Your task to perform on an android device: Go to internet settings Image 0: 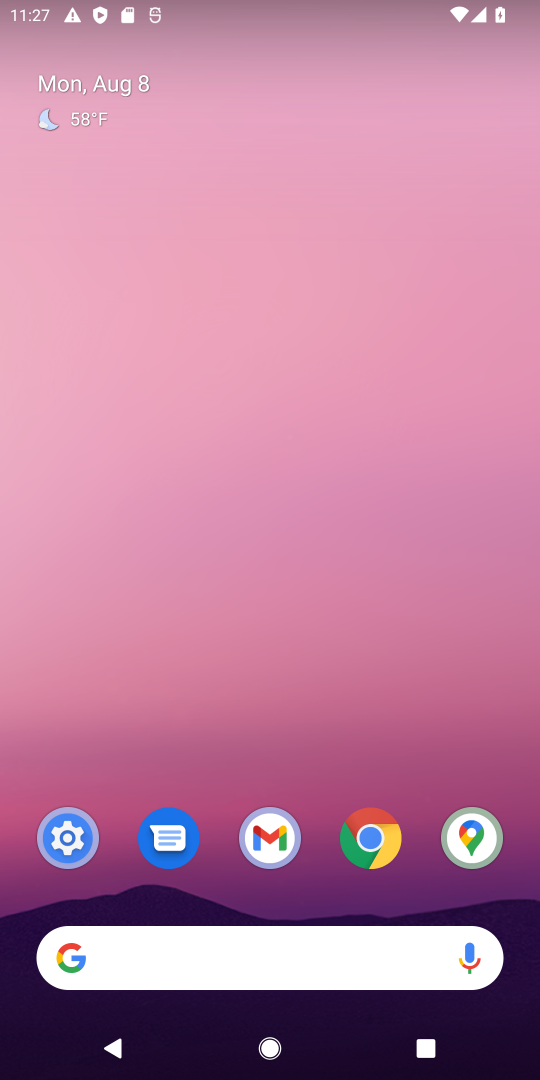
Step 0: press home button
Your task to perform on an android device: Go to internet settings Image 1: 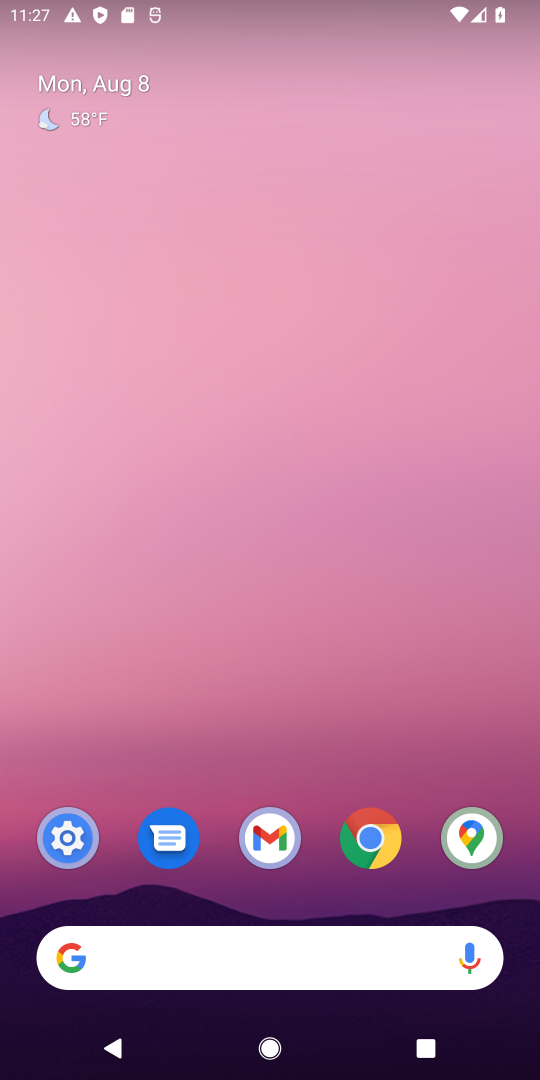
Step 1: click (74, 846)
Your task to perform on an android device: Go to internet settings Image 2: 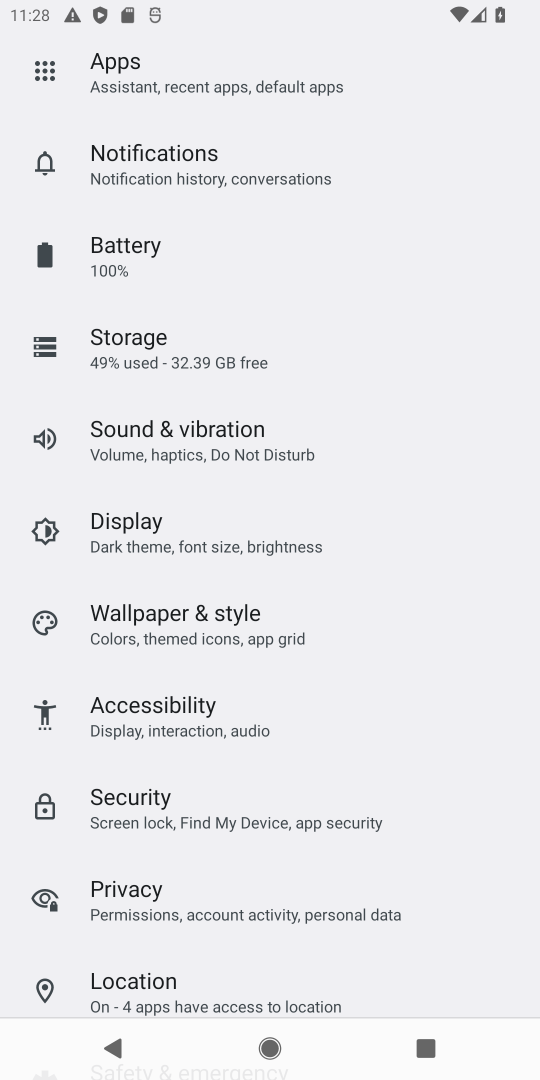
Step 2: drag from (316, 138) to (346, 716)
Your task to perform on an android device: Go to internet settings Image 3: 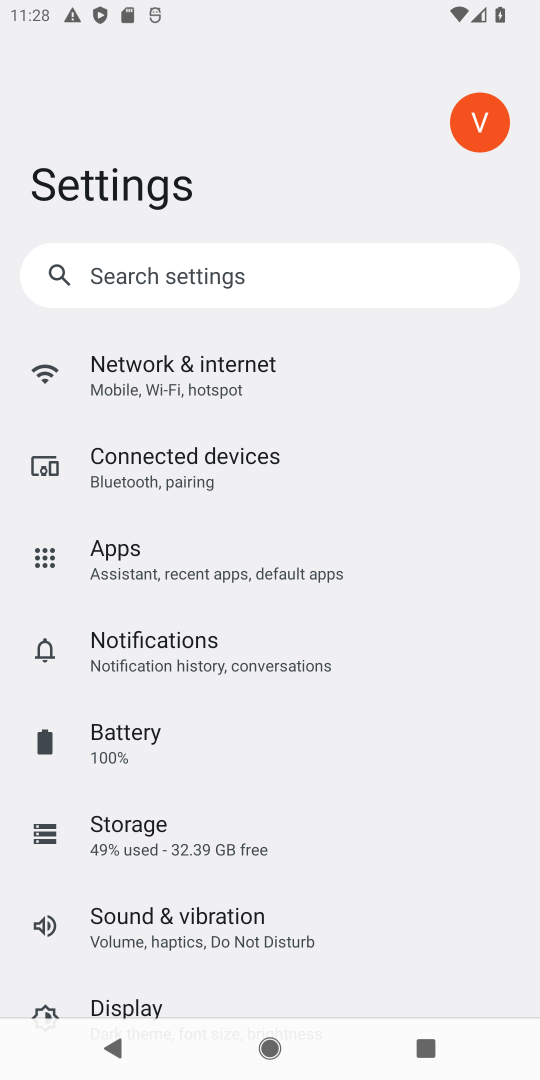
Step 3: click (169, 383)
Your task to perform on an android device: Go to internet settings Image 4: 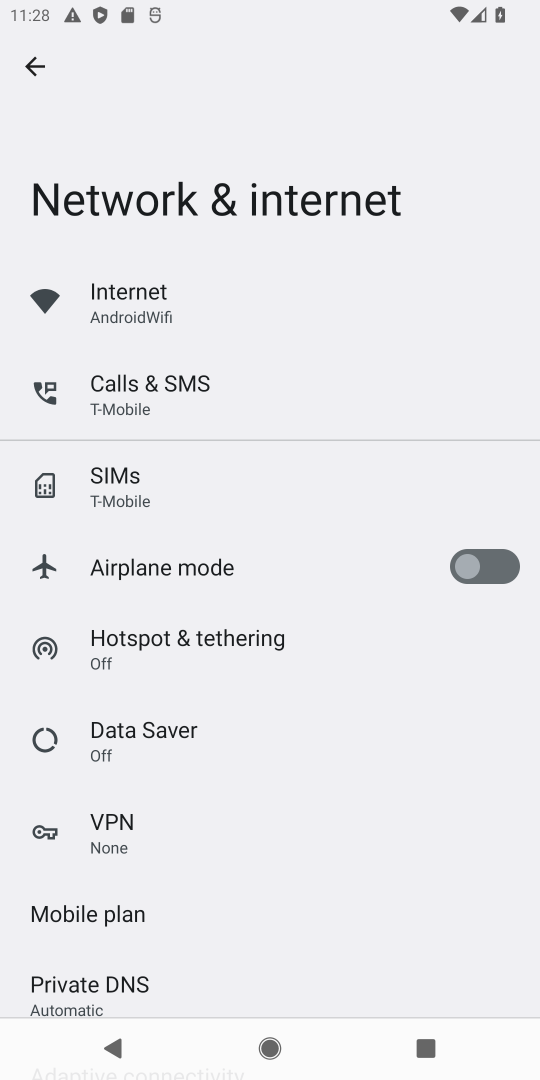
Step 4: click (249, 304)
Your task to perform on an android device: Go to internet settings Image 5: 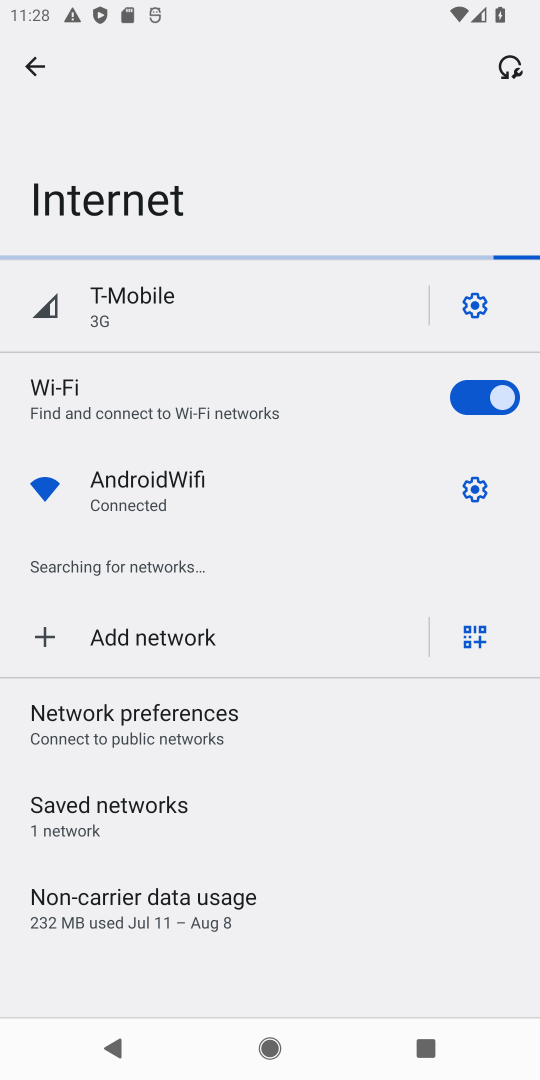
Step 5: task complete